Your task to perform on an android device: What is the recent news? Image 0: 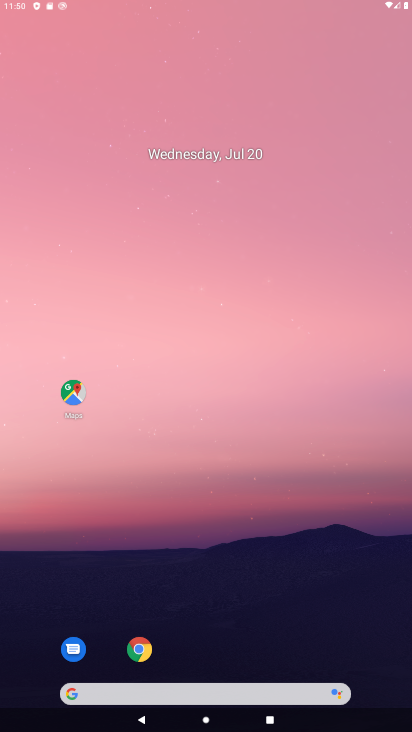
Step 0: click (218, 102)
Your task to perform on an android device: What is the recent news? Image 1: 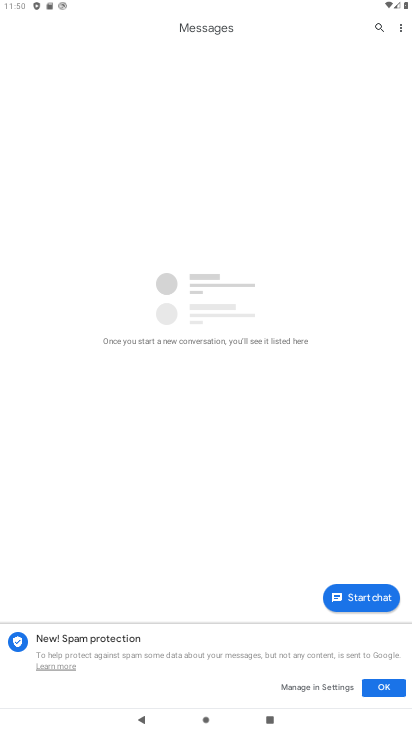
Step 1: press home button
Your task to perform on an android device: What is the recent news? Image 2: 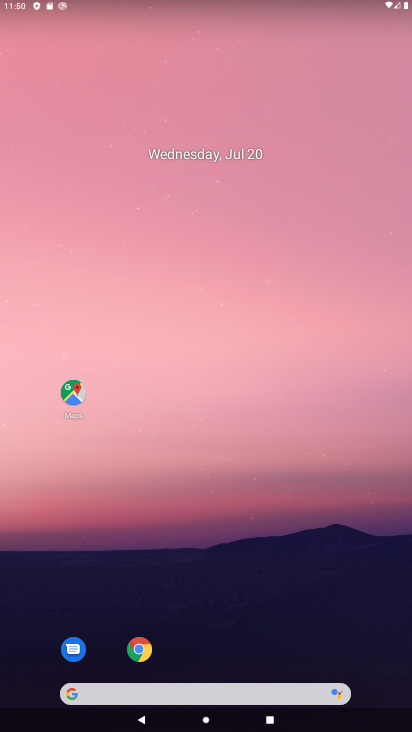
Step 2: click (136, 651)
Your task to perform on an android device: What is the recent news? Image 3: 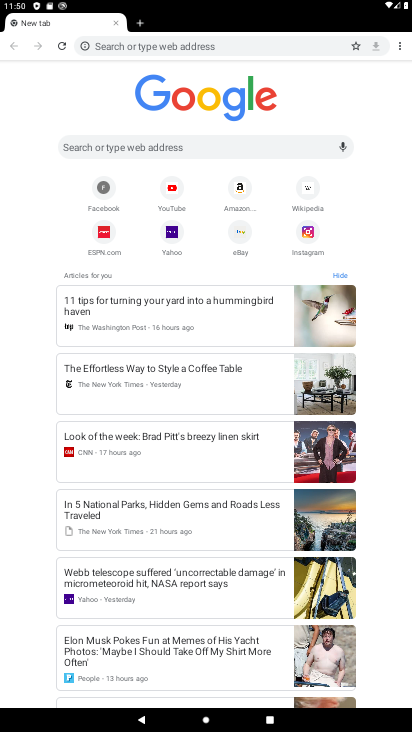
Step 3: click (259, 137)
Your task to perform on an android device: What is the recent news? Image 4: 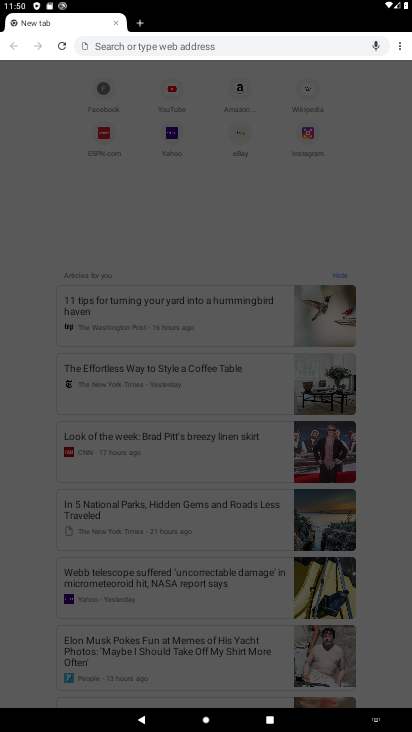
Step 4: type "What is the recent news?"
Your task to perform on an android device: What is the recent news? Image 5: 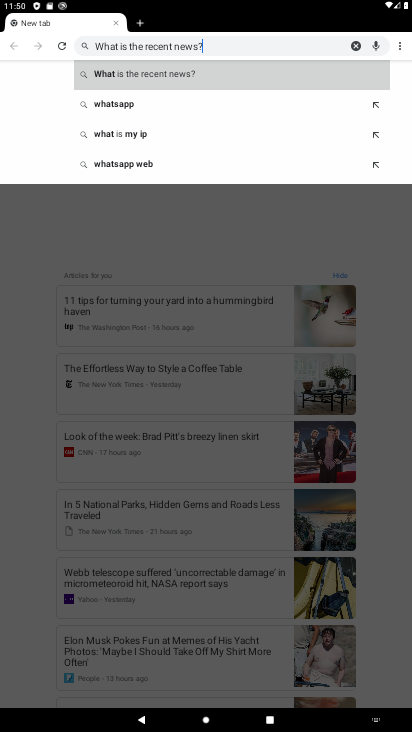
Step 5: type ""
Your task to perform on an android device: What is the recent news? Image 6: 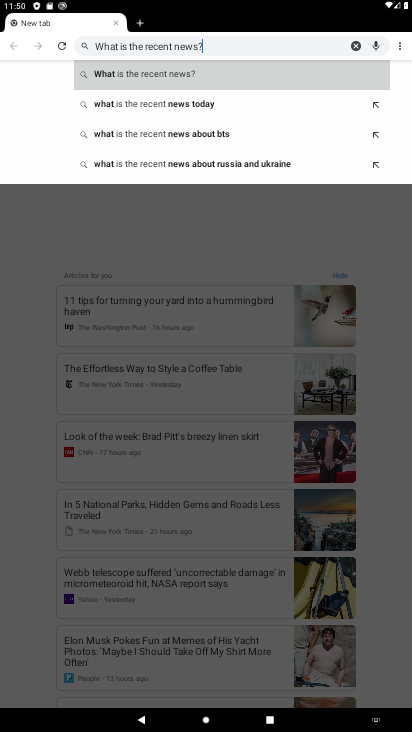
Step 6: click (181, 70)
Your task to perform on an android device: What is the recent news? Image 7: 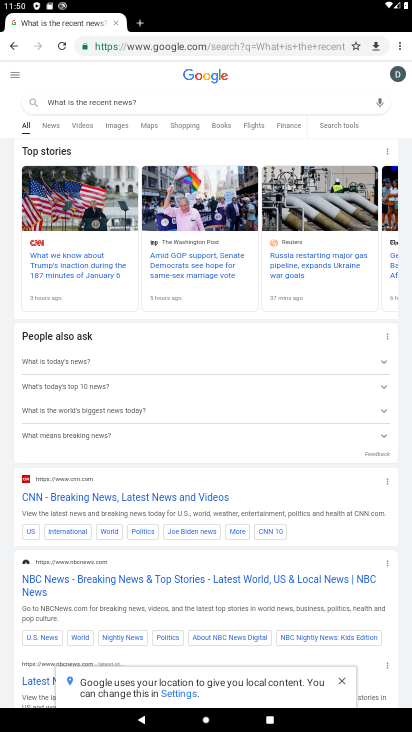
Step 7: task complete